Your task to perform on an android device: Search for vegetarian restaurants on Maps Image 0: 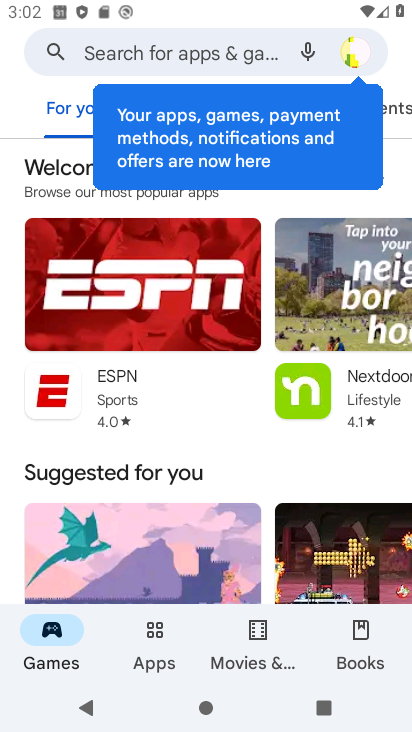
Step 0: press home button
Your task to perform on an android device: Search for vegetarian restaurants on Maps Image 1: 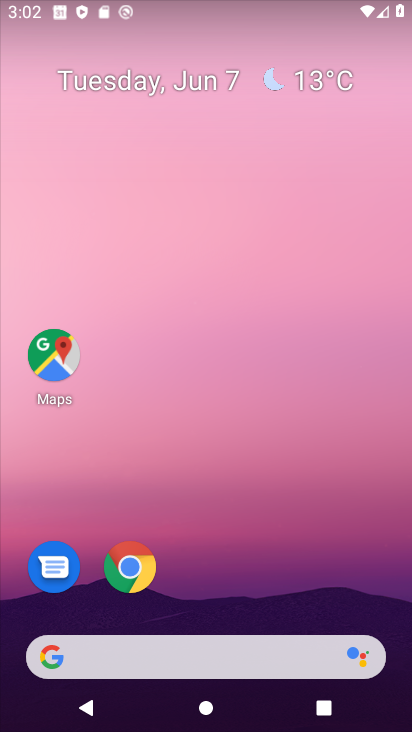
Step 1: click (54, 361)
Your task to perform on an android device: Search for vegetarian restaurants on Maps Image 2: 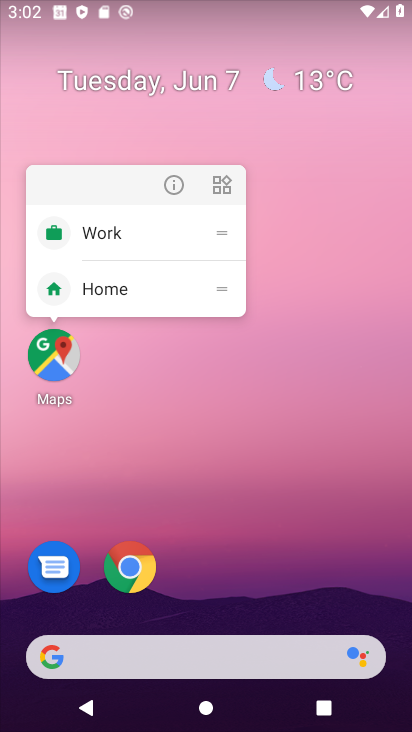
Step 2: click (54, 361)
Your task to perform on an android device: Search for vegetarian restaurants on Maps Image 3: 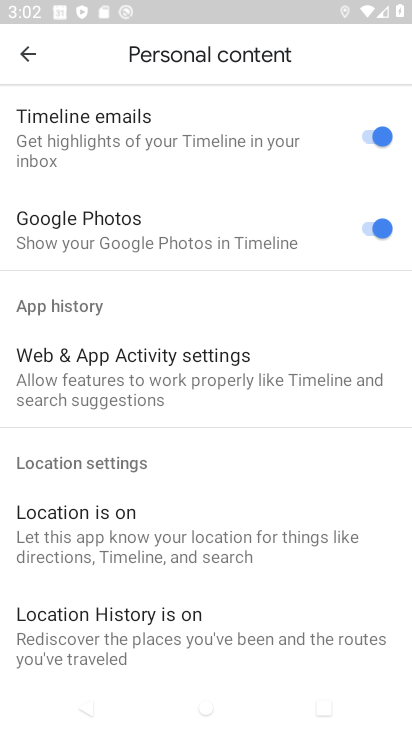
Step 3: click (31, 57)
Your task to perform on an android device: Search for vegetarian restaurants on Maps Image 4: 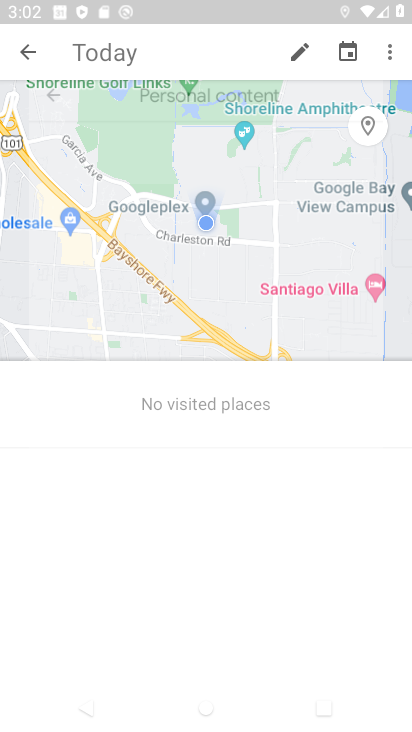
Step 4: click (31, 57)
Your task to perform on an android device: Search for vegetarian restaurants on Maps Image 5: 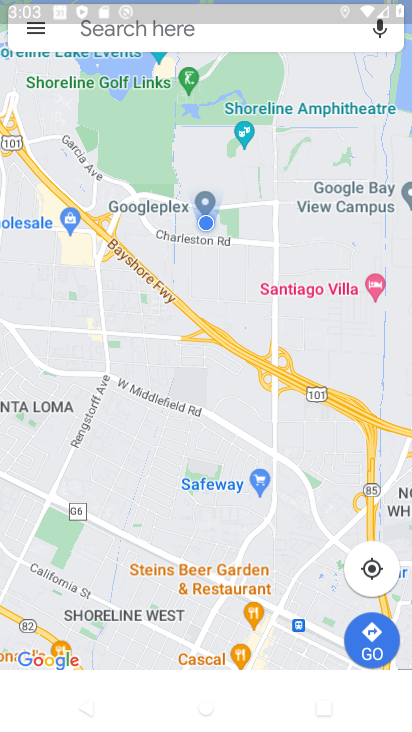
Step 5: click (139, 56)
Your task to perform on an android device: Search for vegetarian restaurants on Maps Image 6: 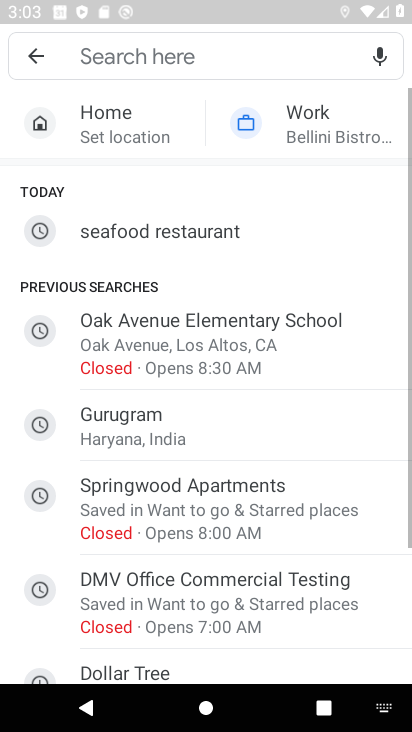
Step 6: click (139, 56)
Your task to perform on an android device: Search for vegetarian restaurants on Maps Image 7: 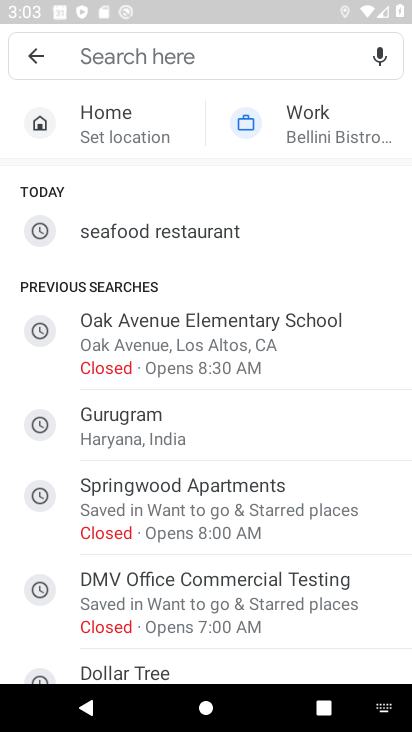
Step 7: type "vegetarian restaurants"
Your task to perform on an android device: Search for vegetarian restaurants on Maps Image 8: 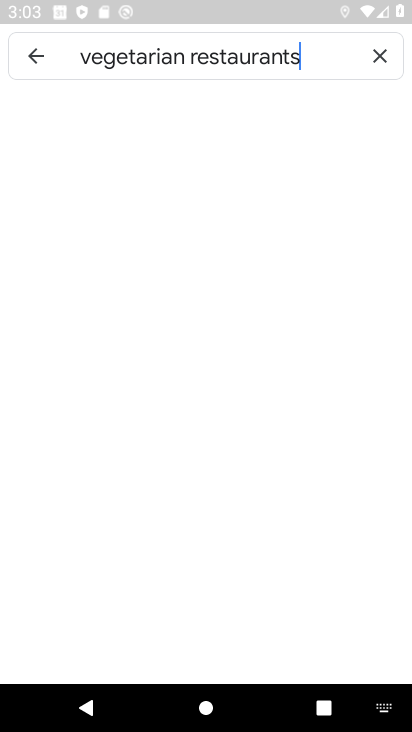
Step 8: type ""
Your task to perform on an android device: Search for vegetarian restaurants on Maps Image 9: 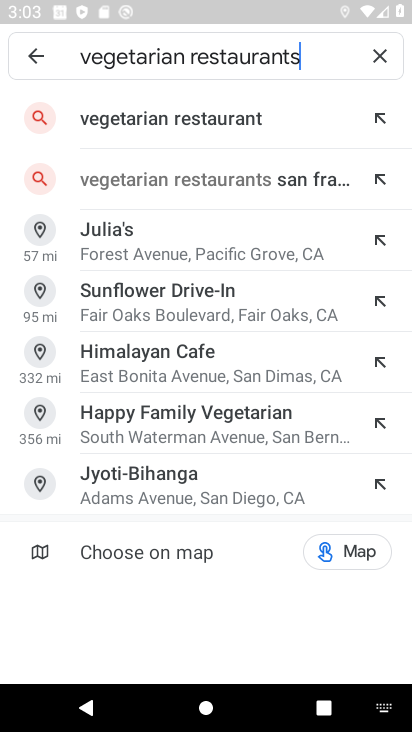
Step 9: click (115, 108)
Your task to perform on an android device: Search for vegetarian restaurants on Maps Image 10: 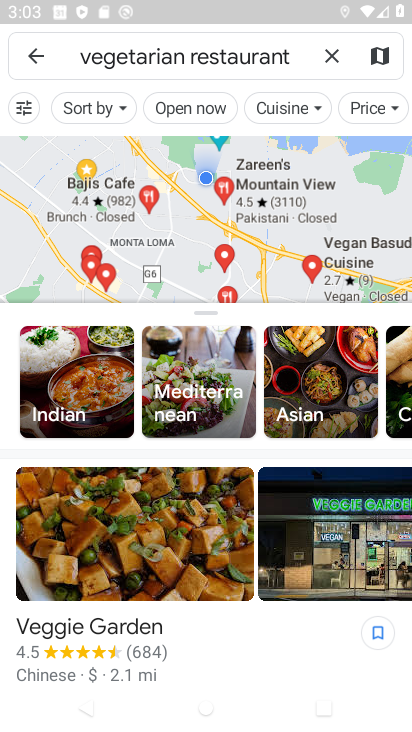
Step 10: task complete